Your task to perform on an android device: Open calendar and show me the fourth week of next month Image 0: 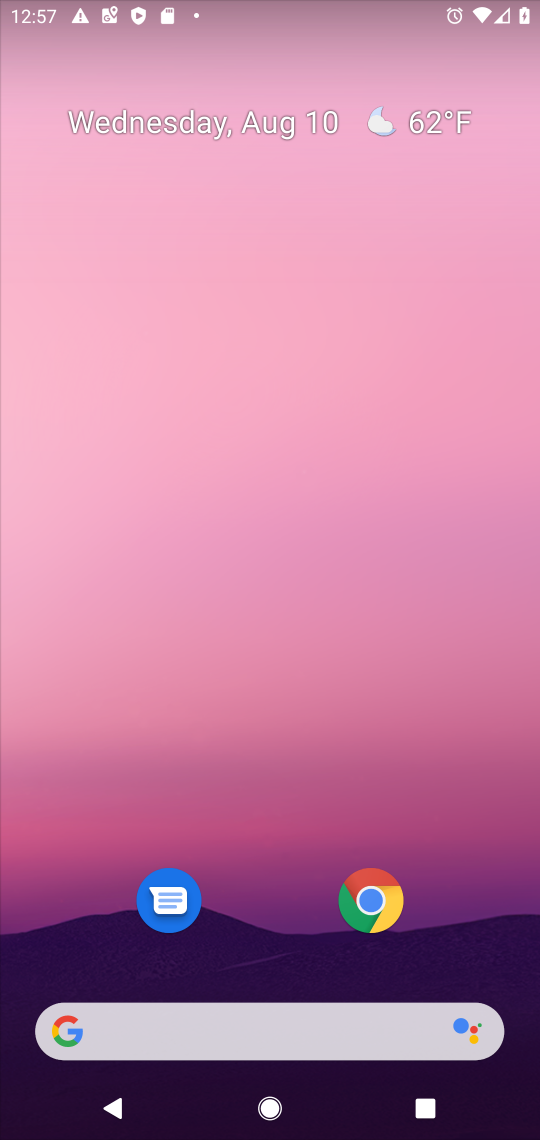
Step 0: drag from (282, 920) to (395, 0)
Your task to perform on an android device: Open calendar and show me the fourth week of next month Image 1: 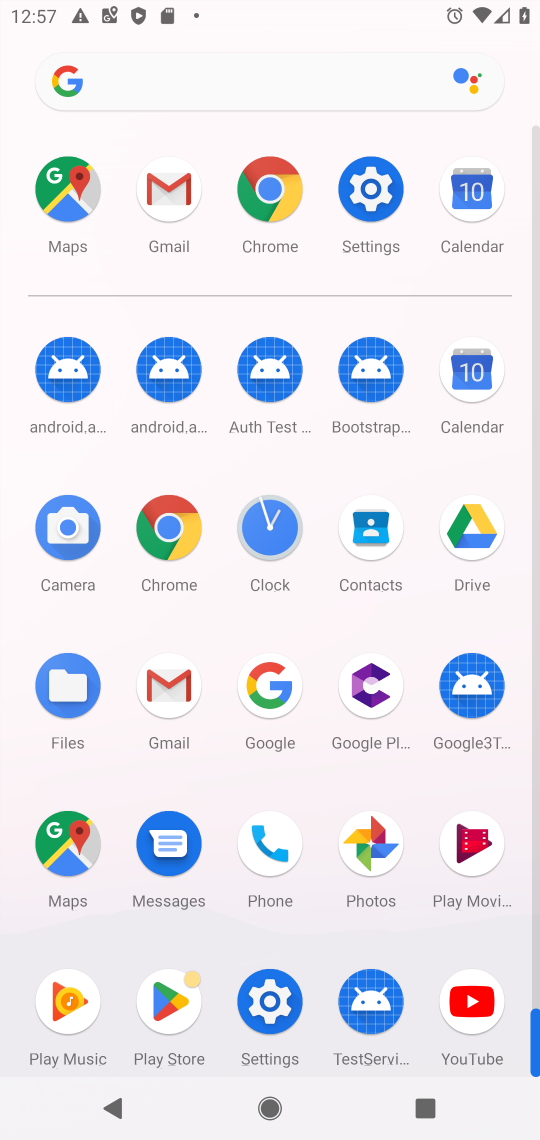
Step 1: click (472, 194)
Your task to perform on an android device: Open calendar and show me the fourth week of next month Image 2: 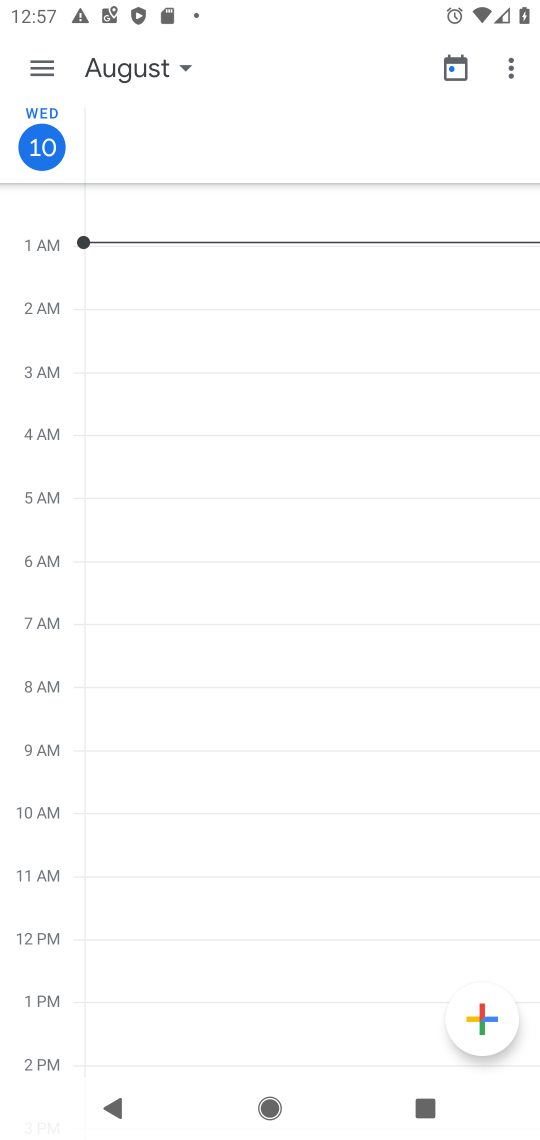
Step 2: click (50, 62)
Your task to perform on an android device: Open calendar and show me the fourth week of next month Image 3: 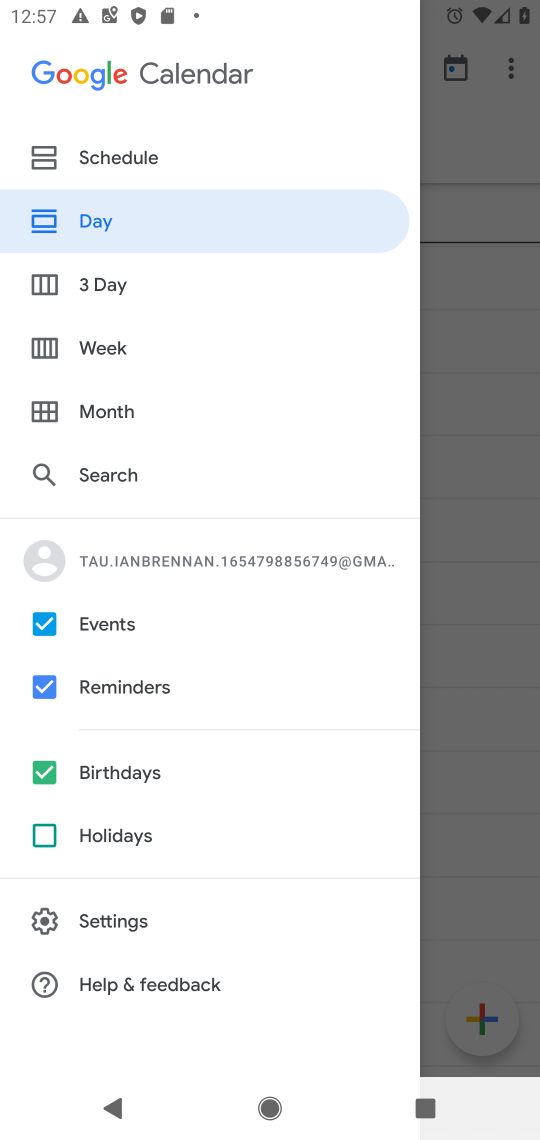
Step 3: click (104, 397)
Your task to perform on an android device: Open calendar and show me the fourth week of next month Image 4: 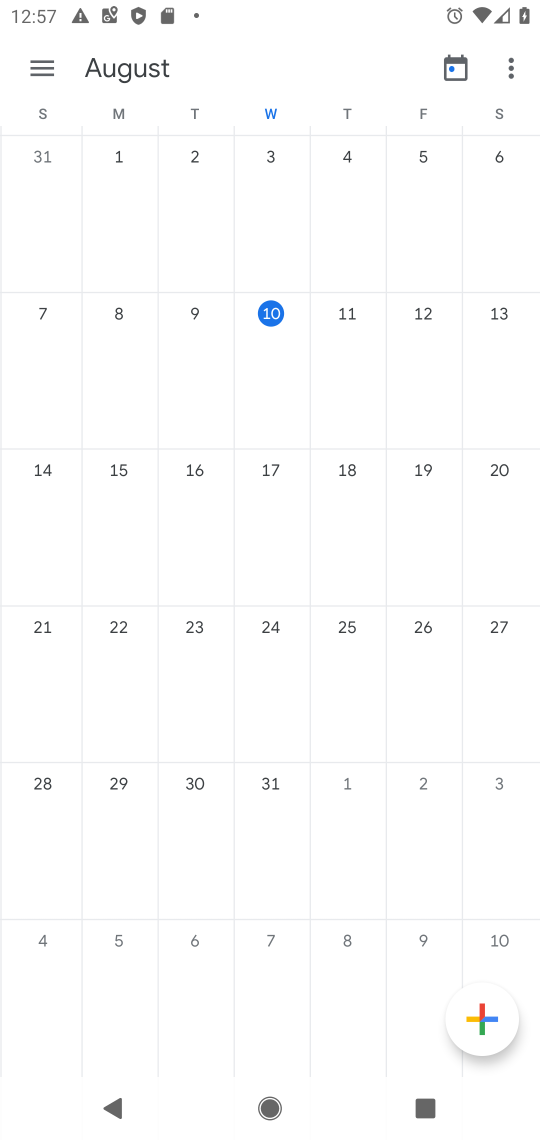
Step 4: drag from (491, 551) to (1, 488)
Your task to perform on an android device: Open calendar and show me the fourth week of next month Image 5: 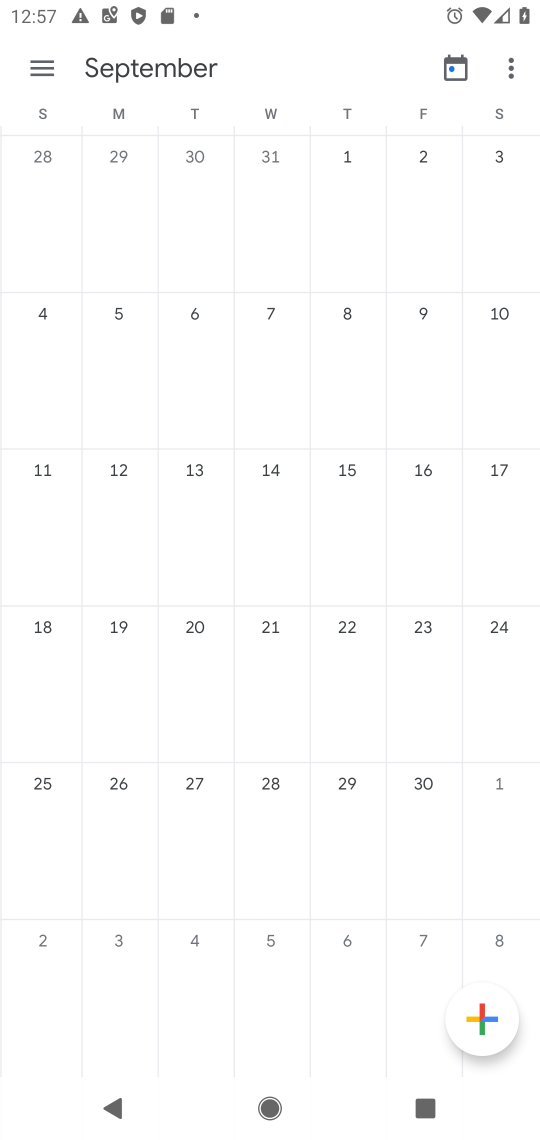
Step 5: click (50, 777)
Your task to perform on an android device: Open calendar and show me the fourth week of next month Image 6: 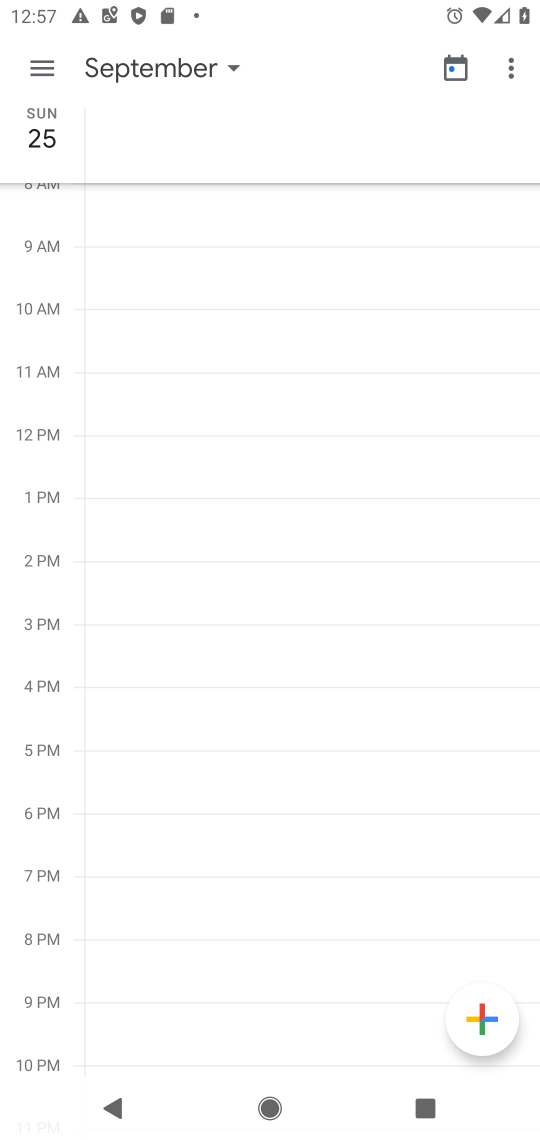
Step 6: click (42, 61)
Your task to perform on an android device: Open calendar and show me the fourth week of next month Image 7: 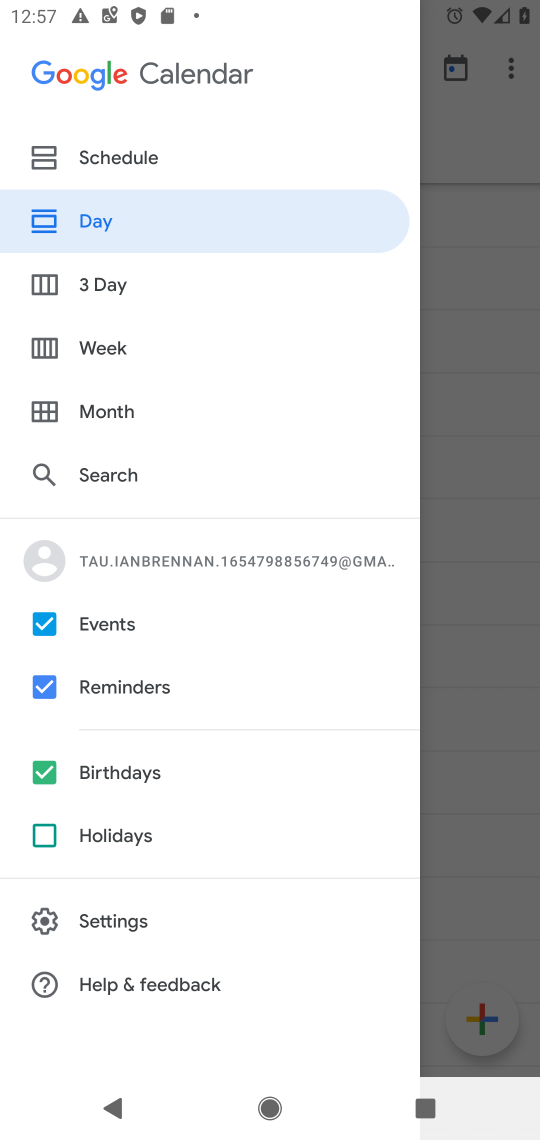
Step 7: click (50, 352)
Your task to perform on an android device: Open calendar and show me the fourth week of next month Image 8: 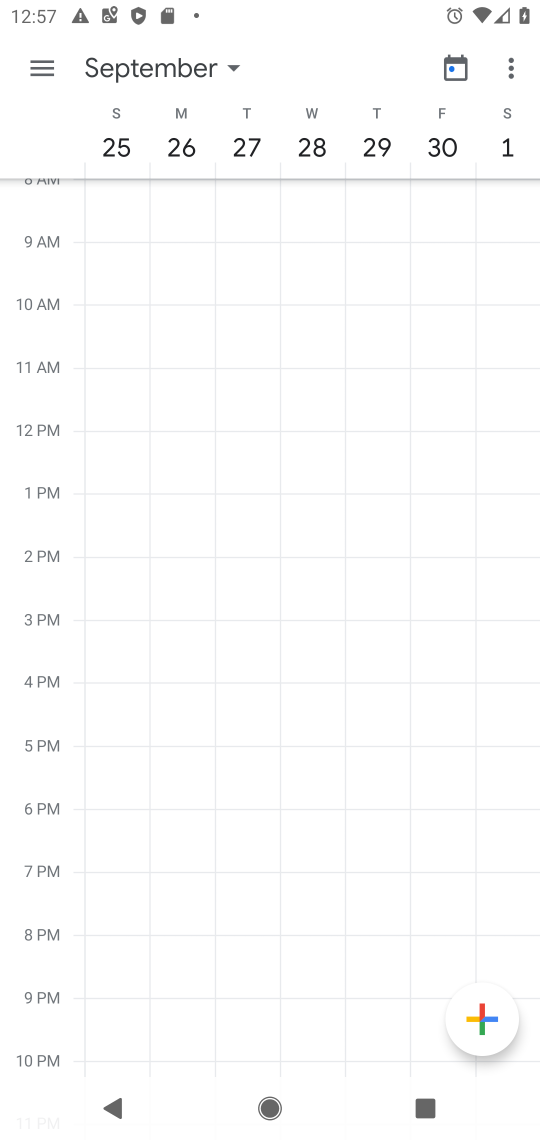
Step 8: task complete